Your task to perform on an android device: Open Amazon Image 0: 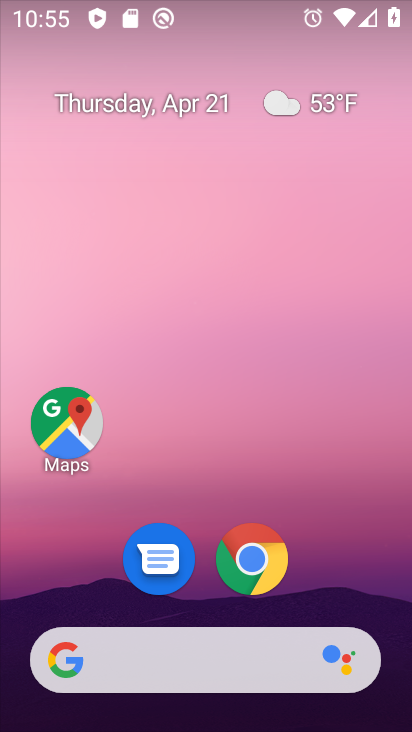
Step 0: drag from (201, 701) to (289, 177)
Your task to perform on an android device: Open Amazon Image 1: 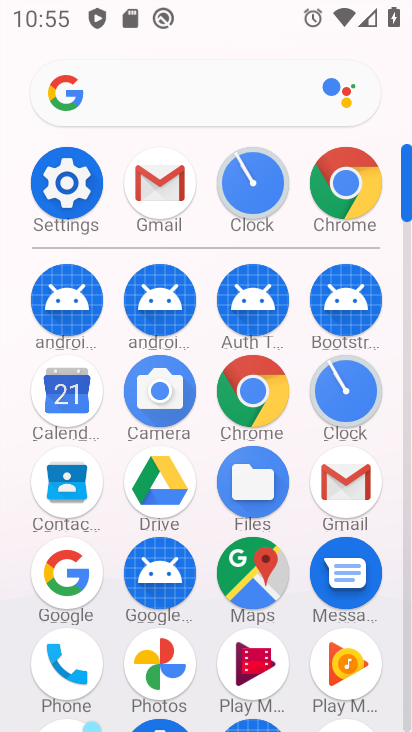
Step 1: click (335, 187)
Your task to perform on an android device: Open Amazon Image 2: 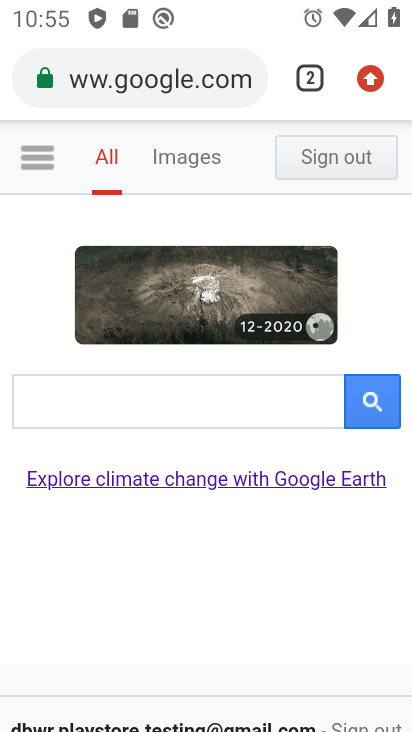
Step 2: click (177, 407)
Your task to perform on an android device: Open Amazon Image 3: 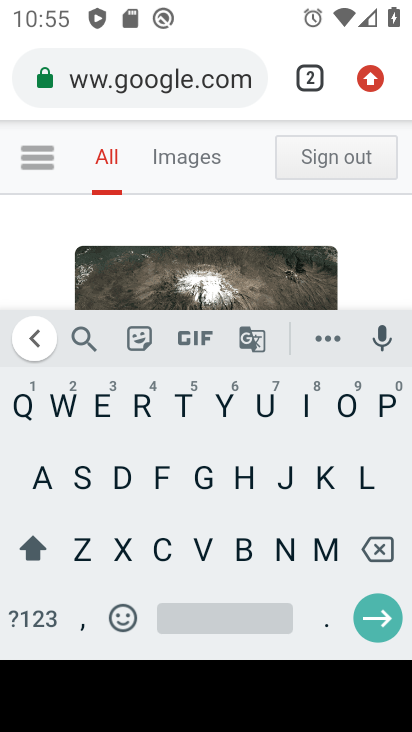
Step 3: click (201, 84)
Your task to perform on an android device: Open Amazon Image 4: 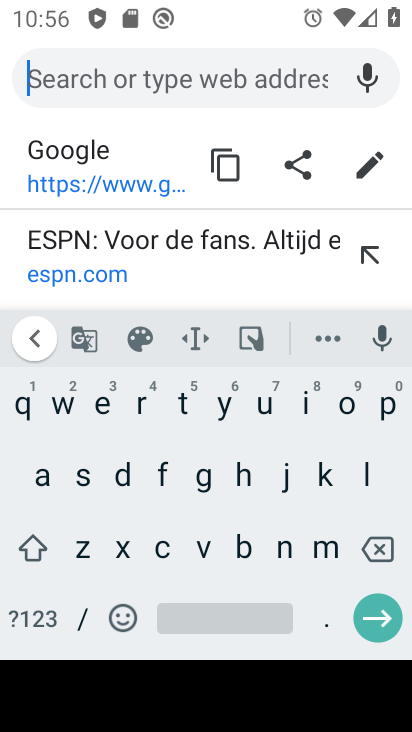
Step 4: click (37, 470)
Your task to perform on an android device: Open Amazon Image 5: 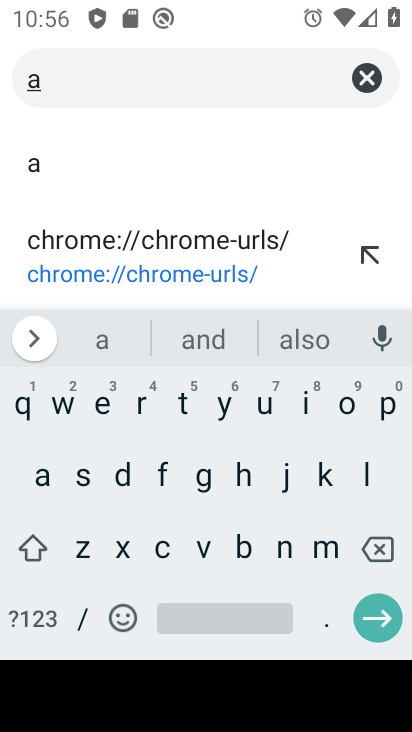
Step 5: click (321, 540)
Your task to perform on an android device: Open Amazon Image 6: 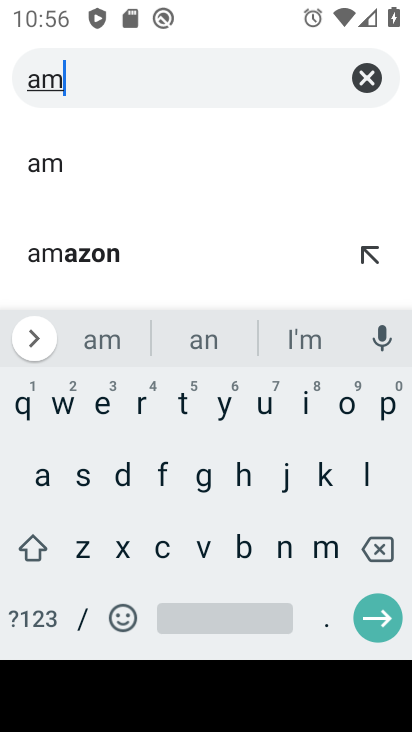
Step 6: click (124, 256)
Your task to perform on an android device: Open Amazon Image 7: 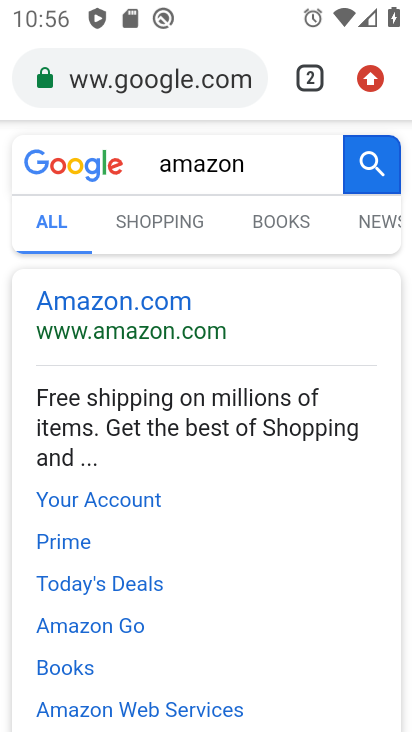
Step 7: click (111, 303)
Your task to perform on an android device: Open Amazon Image 8: 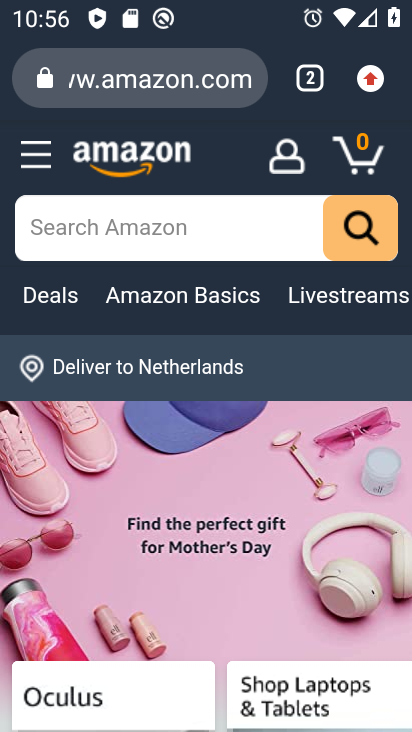
Step 8: task complete